Your task to perform on an android device: Open network settings Image 0: 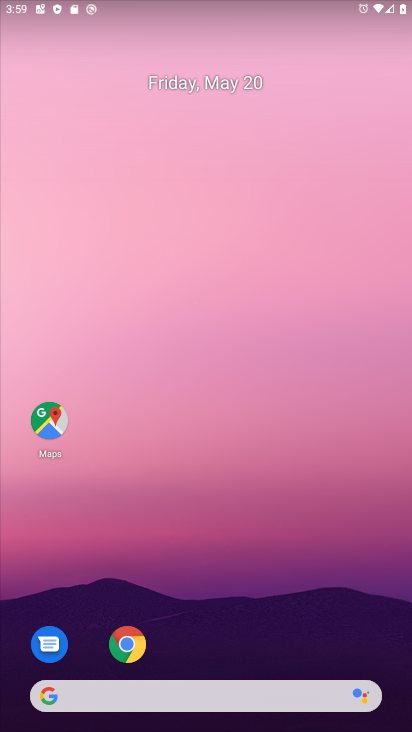
Step 0: drag from (238, 648) to (264, 204)
Your task to perform on an android device: Open network settings Image 1: 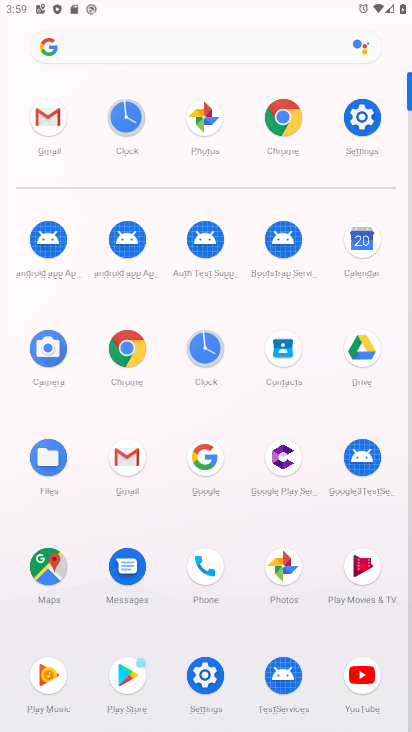
Step 1: click (376, 102)
Your task to perform on an android device: Open network settings Image 2: 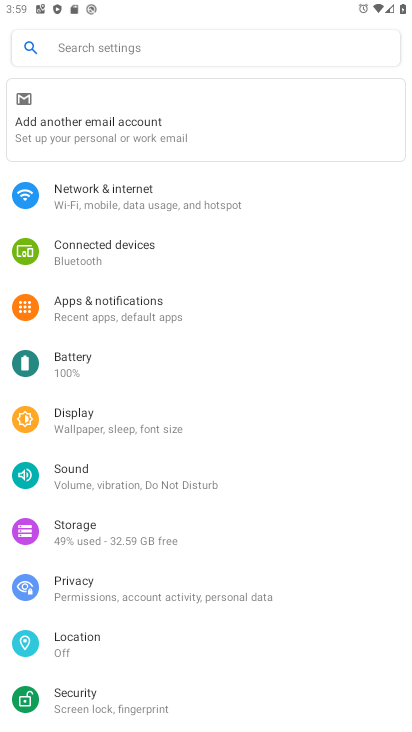
Step 2: click (270, 190)
Your task to perform on an android device: Open network settings Image 3: 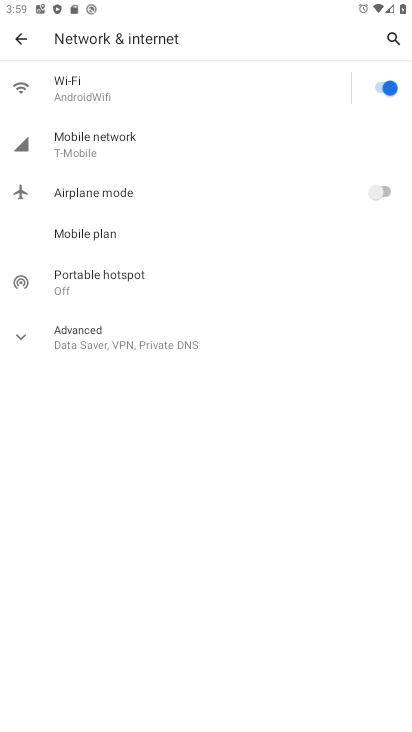
Step 3: task complete